Your task to perform on an android device: Open Yahoo.com Image 0: 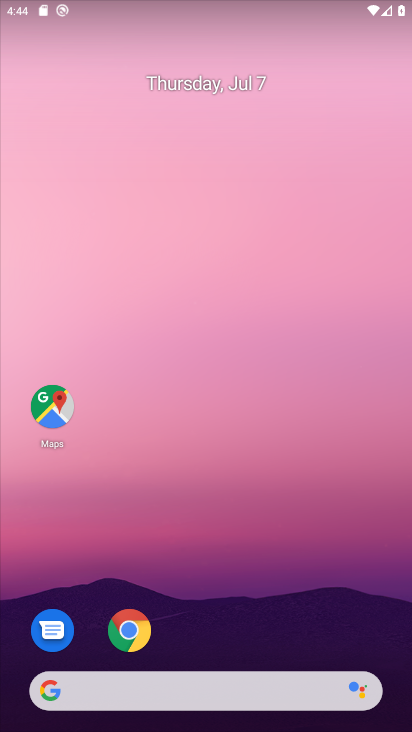
Step 0: drag from (239, 640) to (280, 153)
Your task to perform on an android device: Open Yahoo.com Image 1: 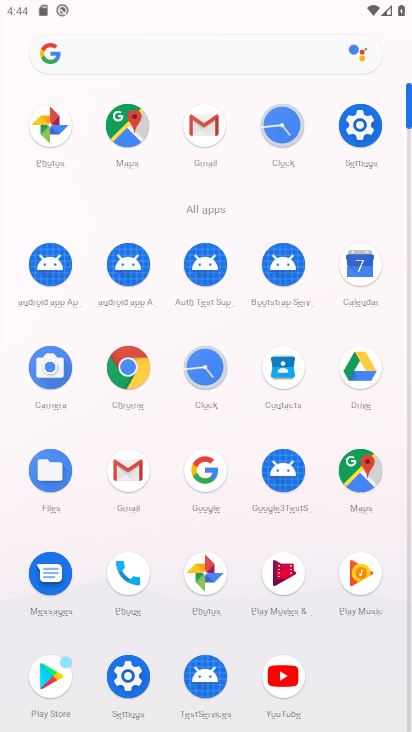
Step 1: click (122, 370)
Your task to perform on an android device: Open Yahoo.com Image 2: 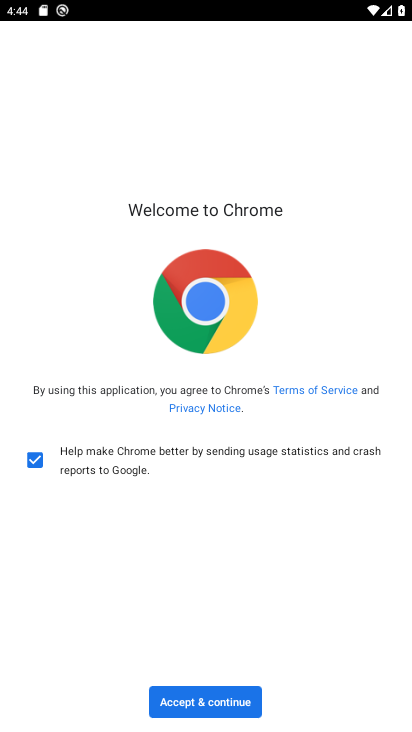
Step 2: click (249, 700)
Your task to perform on an android device: Open Yahoo.com Image 3: 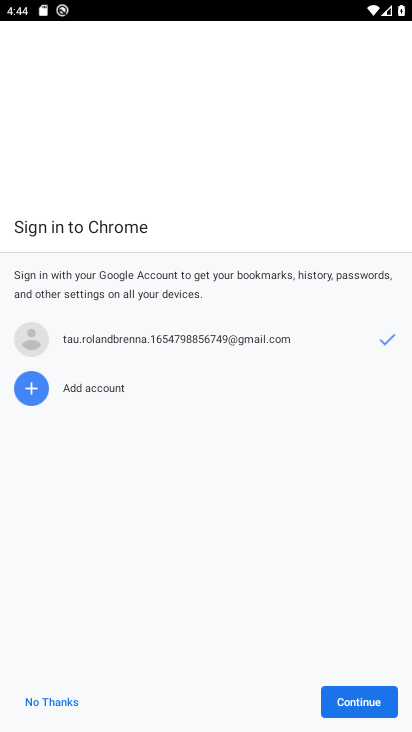
Step 3: click (353, 695)
Your task to perform on an android device: Open Yahoo.com Image 4: 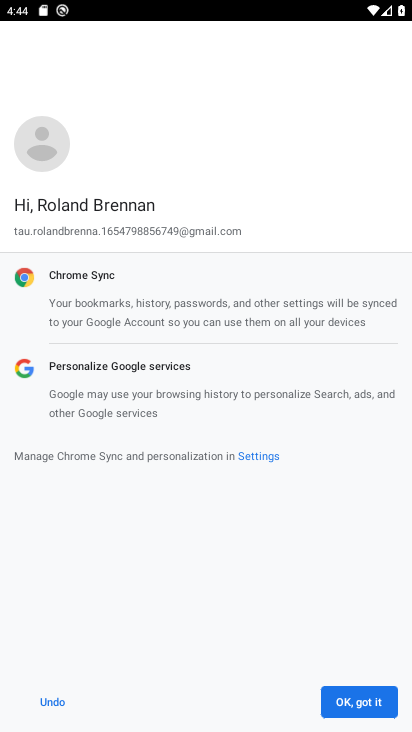
Step 4: click (353, 695)
Your task to perform on an android device: Open Yahoo.com Image 5: 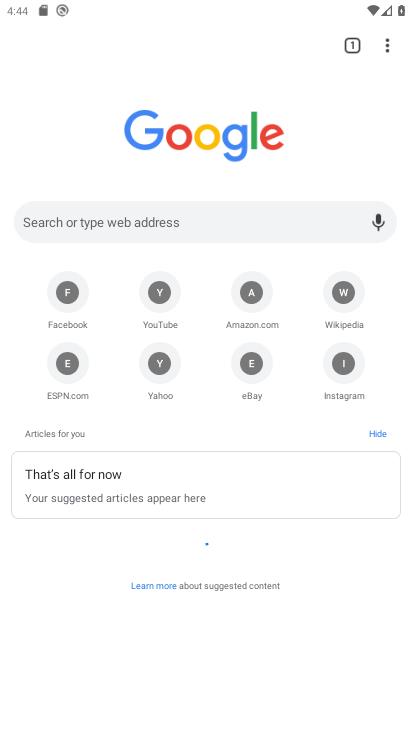
Step 5: click (157, 371)
Your task to perform on an android device: Open Yahoo.com Image 6: 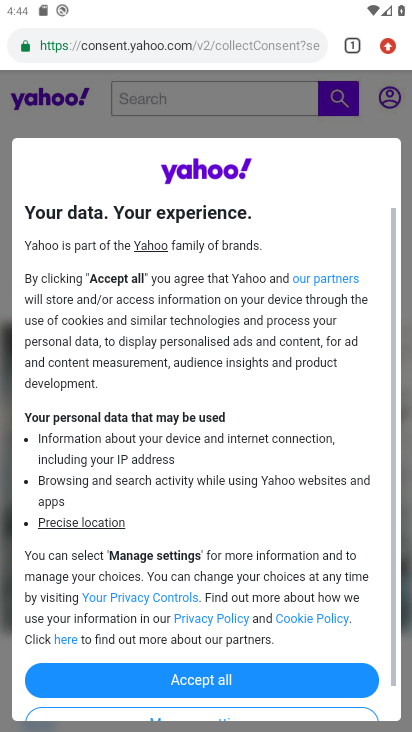
Step 6: click (255, 676)
Your task to perform on an android device: Open Yahoo.com Image 7: 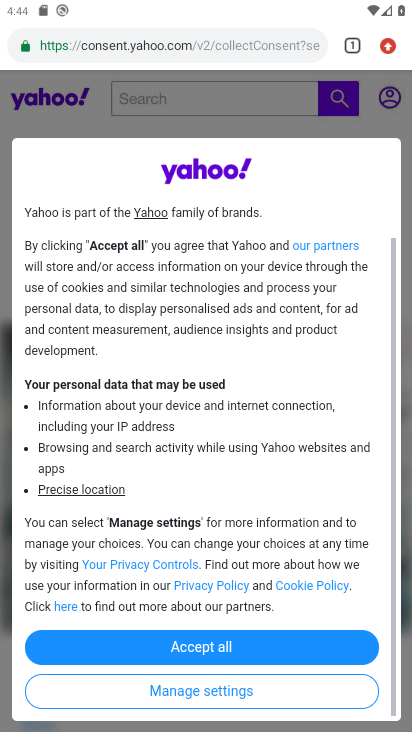
Step 7: click (177, 633)
Your task to perform on an android device: Open Yahoo.com Image 8: 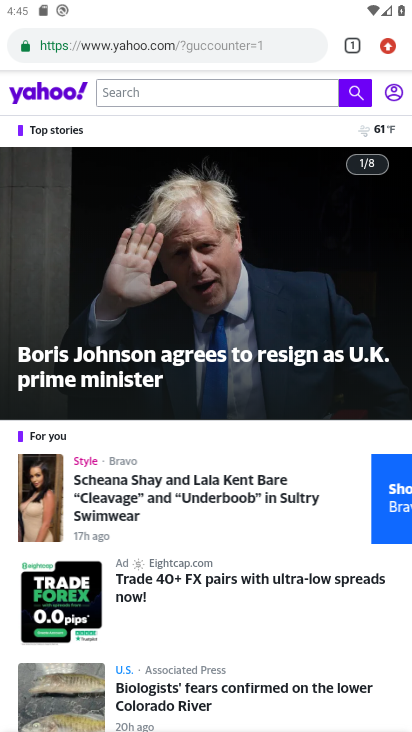
Step 8: task complete